Your task to perform on an android device: toggle show notifications on the lock screen Image 0: 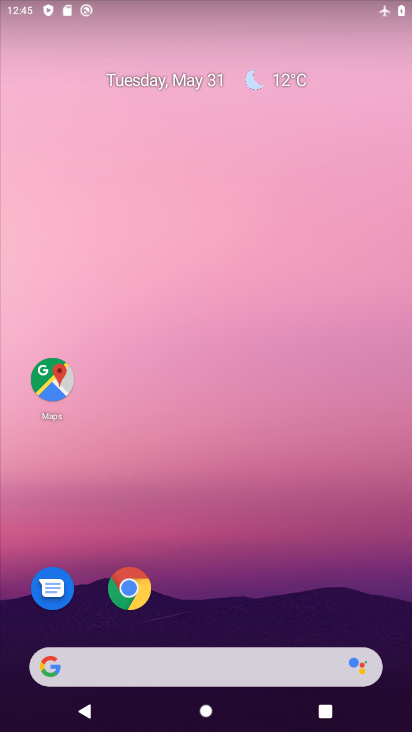
Step 0: drag from (400, 574) to (361, 123)
Your task to perform on an android device: toggle show notifications on the lock screen Image 1: 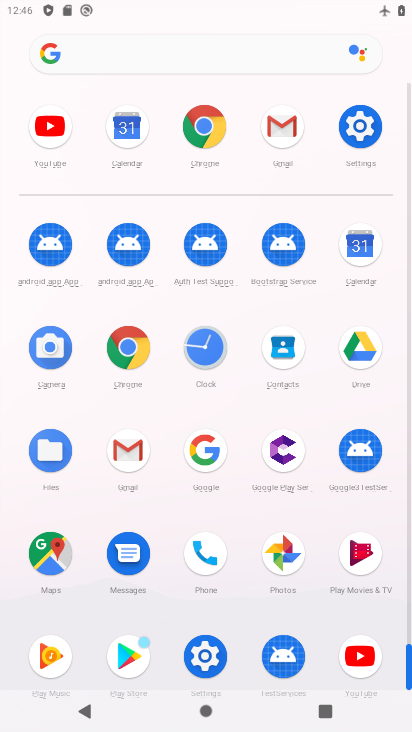
Step 1: click (344, 134)
Your task to perform on an android device: toggle show notifications on the lock screen Image 2: 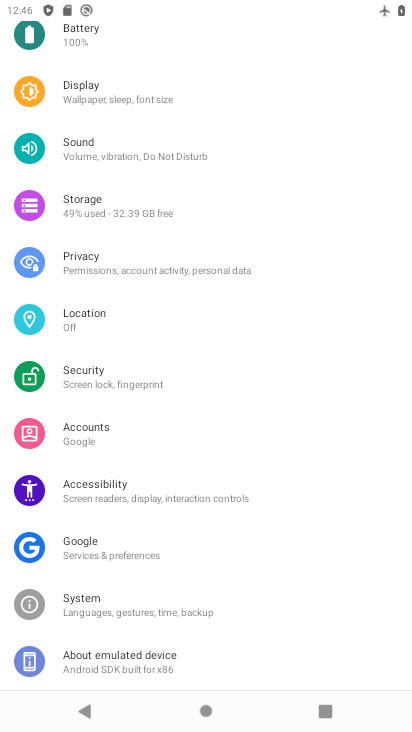
Step 2: drag from (282, 95) to (286, 583)
Your task to perform on an android device: toggle show notifications on the lock screen Image 3: 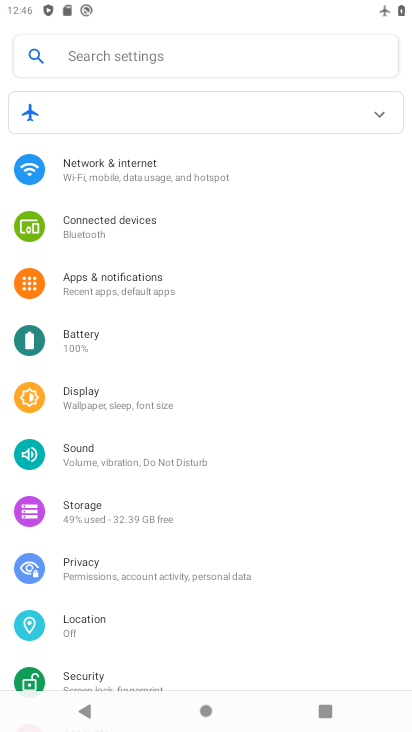
Step 3: click (107, 283)
Your task to perform on an android device: toggle show notifications on the lock screen Image 4: 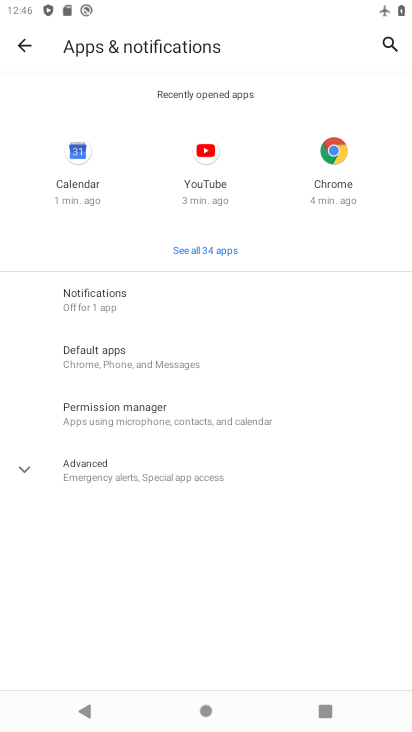
Step 4: click (99, 300)
Your task to perform on an android device: toggle show notifications on the lock screen Image 5: 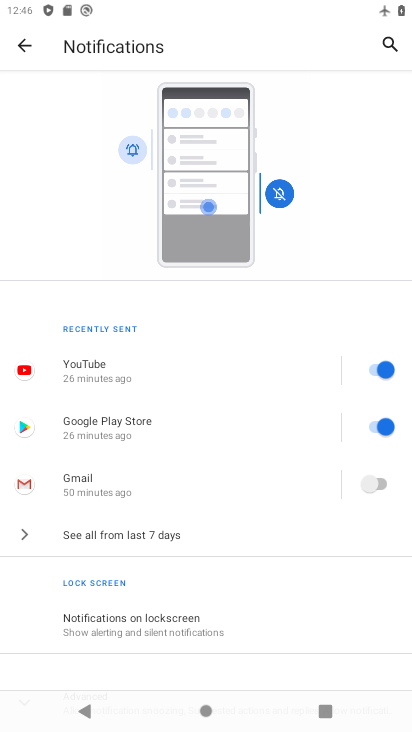
Step 5: click (161, 617)
Your task to perform on an android device: toggle show notifications on the lock screen Image 6: 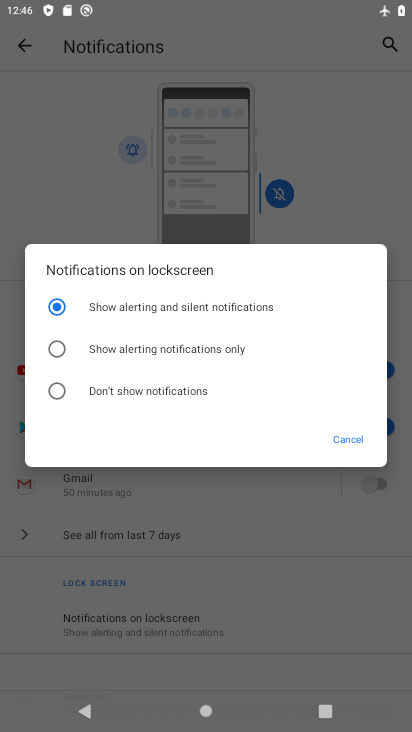
Step 6: click (59, 350)
Your task to perform on an android device: toggle show notifications on the lock screen Image 7: 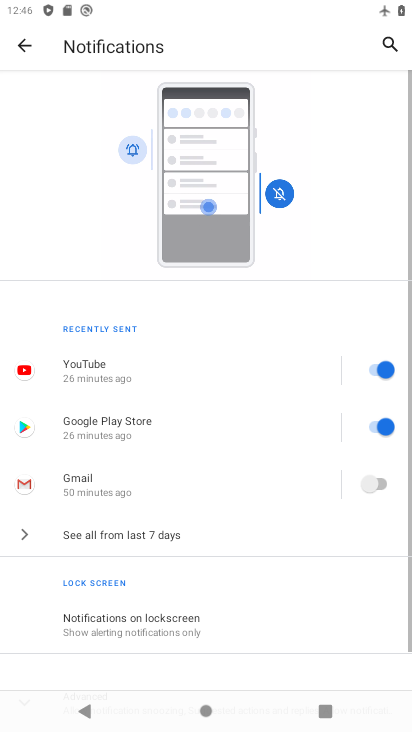
Step 7: task complete